Your task to perform on an android device: Open Chrome and go to the settings page Image 0: 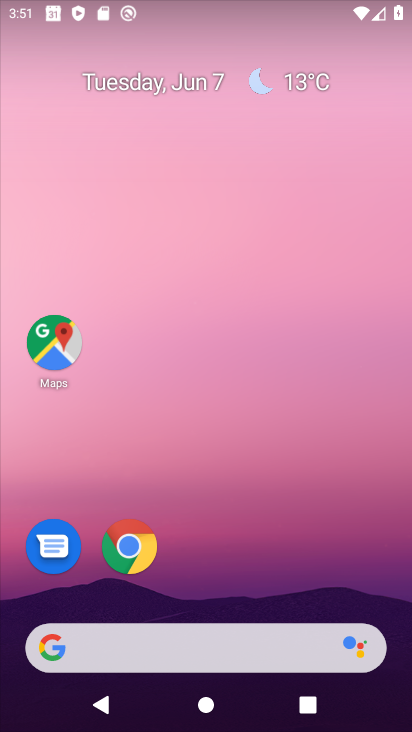
Step 0: click (127, 558)
Your task to perform on an android device: Open Chrome and go to the settings page Image 1: 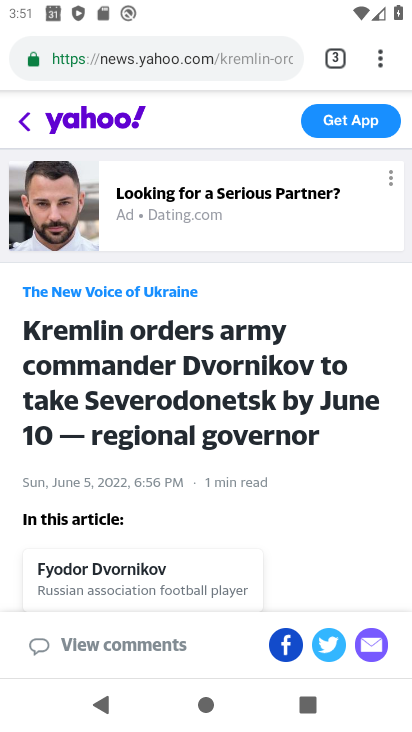
Step 1: click (381, 60)
Your task to perform on an android device: Open Chrome and go to the settings page Image 2: 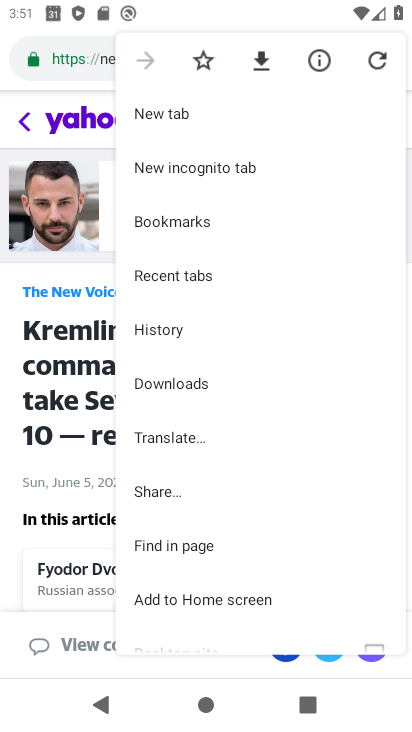
Step 2: drag from (172, 582) to (189, 136)
Your task to perform on an android device: Open Chrome and go to the settings page Image 3: 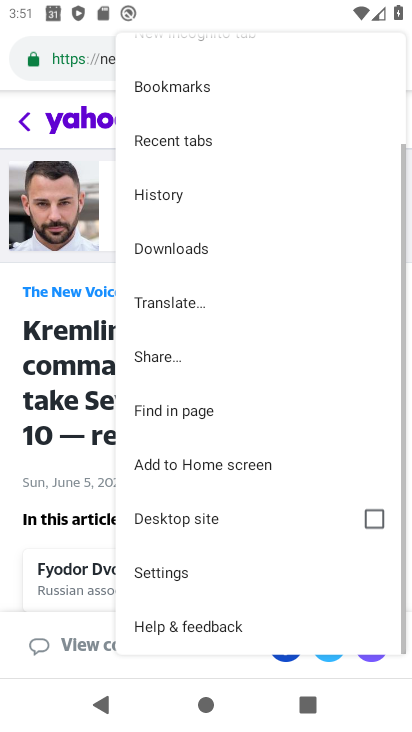
Step 3: click (170, 582)
Your task to perform on an android device: Open Chrome and go to the settings page Image 4: 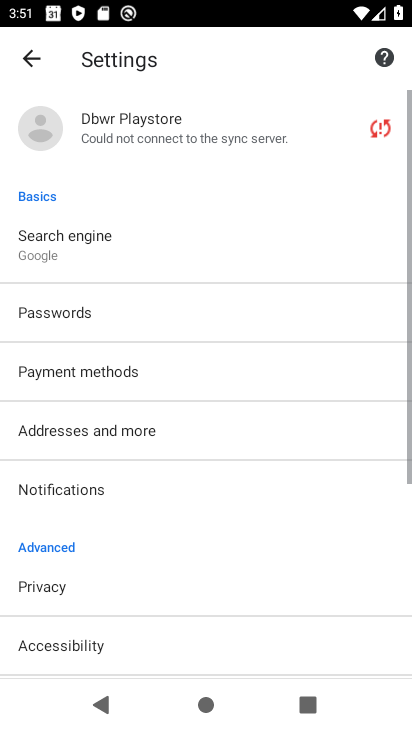
Step 4: task complete